Your task to perform on an android device: turn off improve location accuracy Image 0: 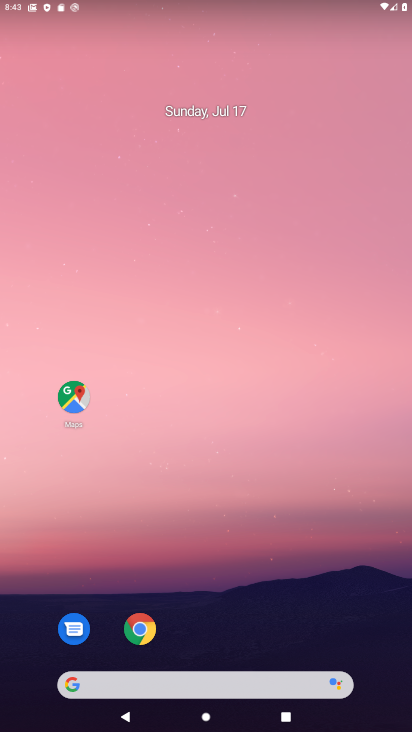
Step 0: drag from (336, 587) to (336, 171)
Your task to perform on an android device: turn off improve location accuracy Image 1: 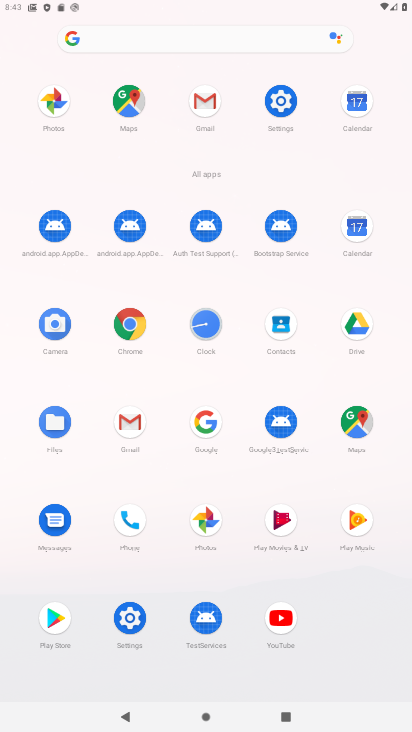
Step 1: click (128, 617)
Your task to perform on an android device: turn off improve location accuracy Image 2: 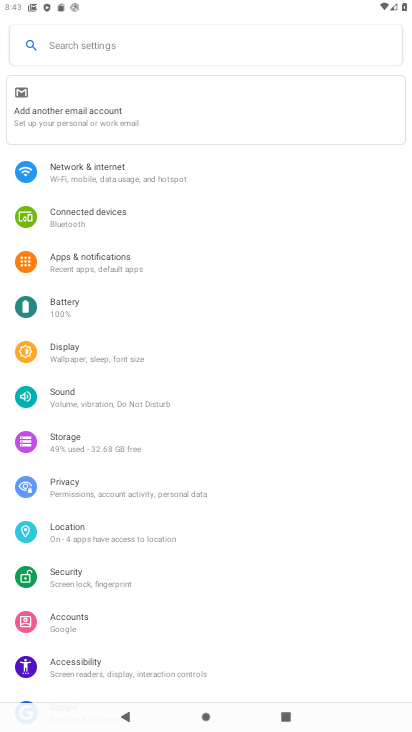
Step 2: click (62, 527)
Your task to perform on an android device: turn off improve location accuracy Image 3: 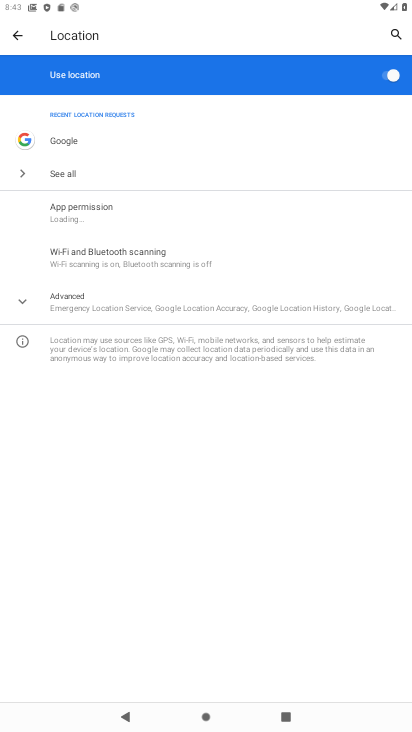
Step 3: click (17, 300)
Your task to perform on an android device: turn off improve location accuracy Image 4: 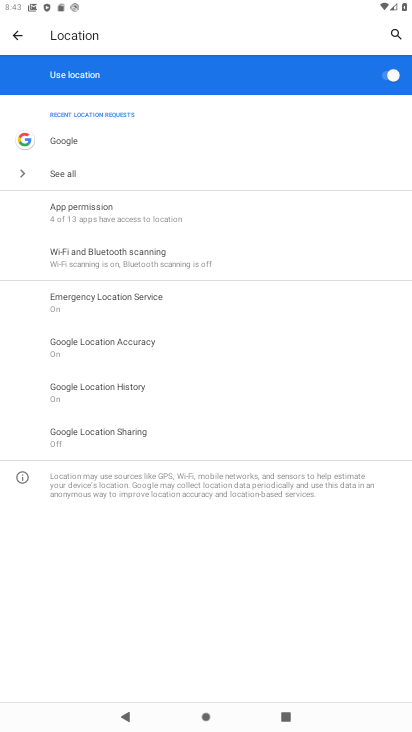
Step 4: click (118, 351)
Your task to perform on an android device: turn off improve location accuracy Image 5: 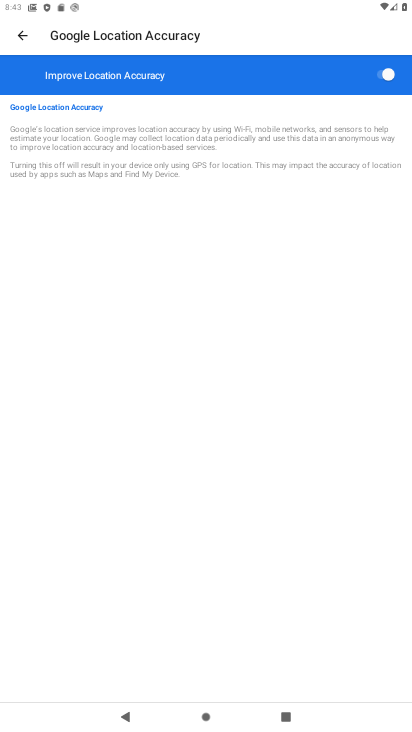
Step 5: click (379, 76)
Your task to perform on an android device: turn off improve location accuracy Image 6: 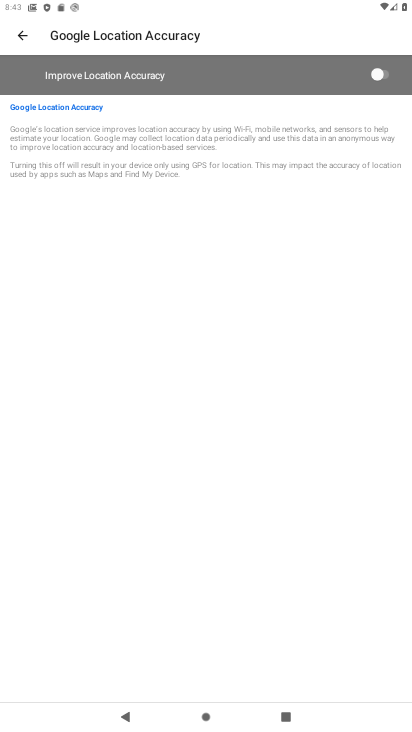
Step 6: task complete